Your task to perform on an android device: delete a single message in the gmail app Image 0: 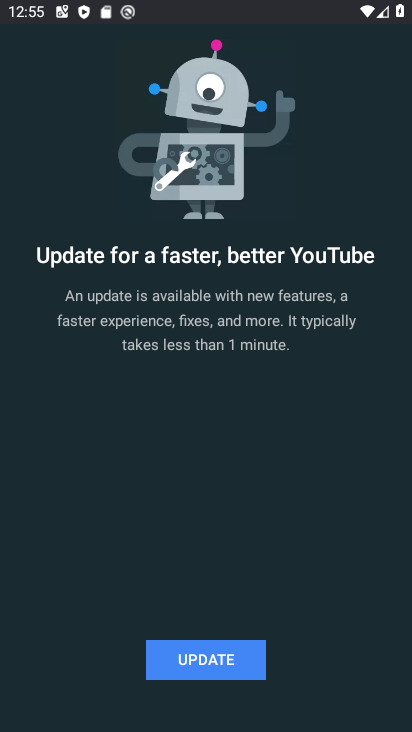
Step 0: press home button
Your task to perform on an android device: delete a single message in the gmail app Image 1: 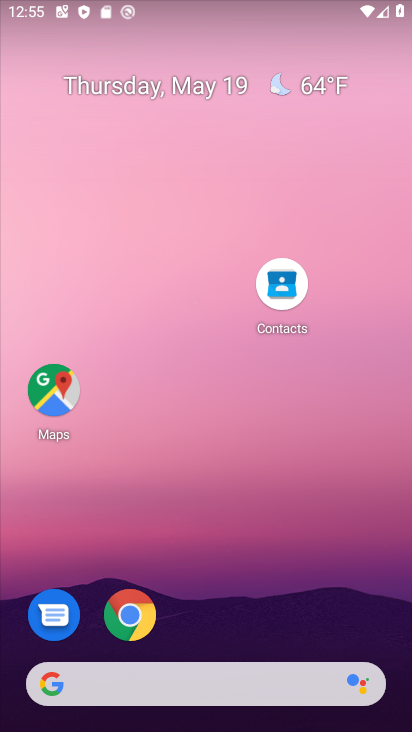
Step 1: drag from (218, 684) to (218, 296)
Your task to perform on an android device: delete a single message in the gmail app Image 2: 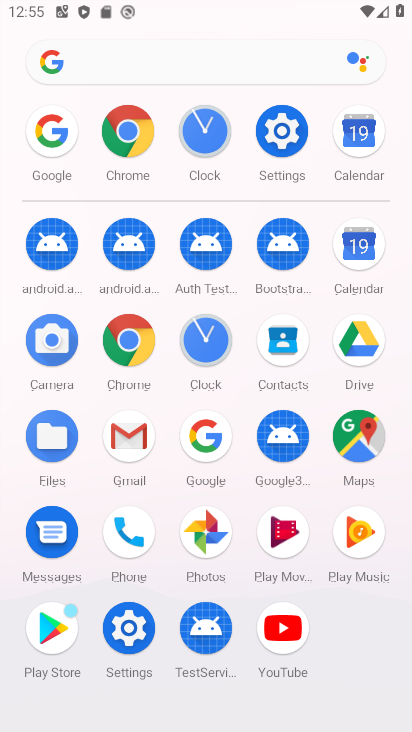
Step 2: click (121, 443)
Your task to perform on an android device: delete a single message in the gmail app Image 3: 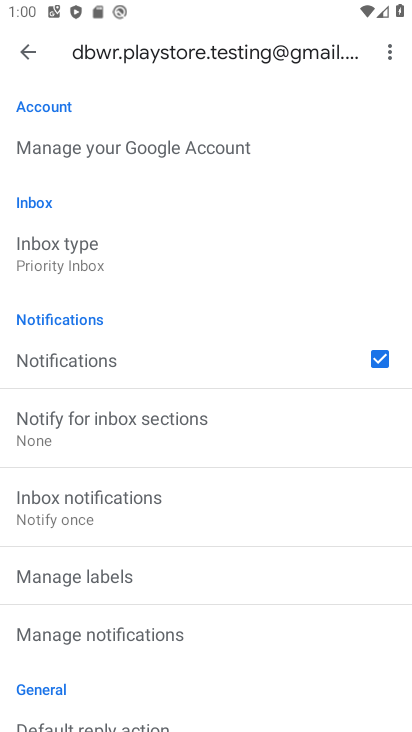
Step 3: drag from (273, 583) to (178, 328)
Your task to perform on an android device: delete a single message in the gmail app Image 4: 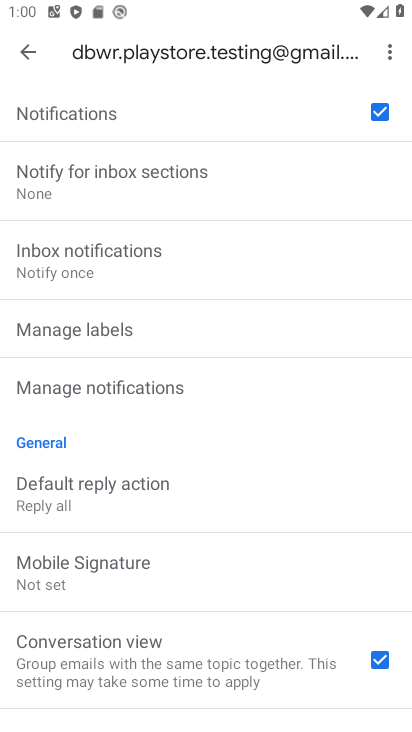
Step 4: click (25, 61)
Your task to perform on an android device: delete a single message in the gmail app Image 5: 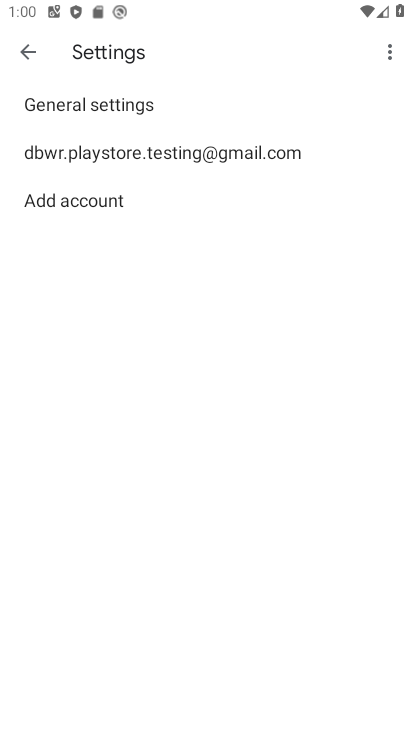
Step 5: click (25, 61)
Your task to perform on an android device: delete a single message in the gmail app Image 6: 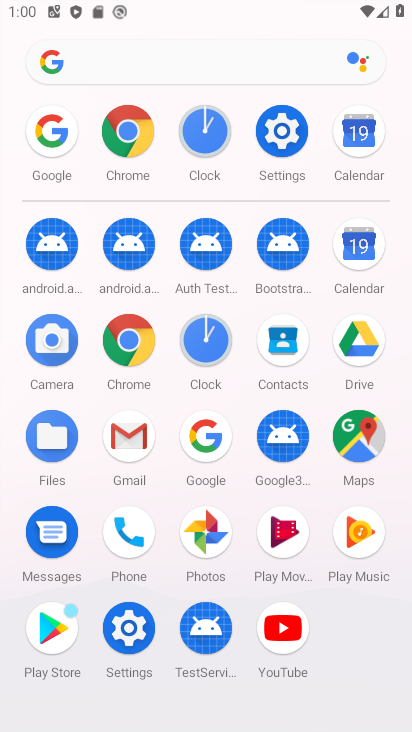
Step 6: click (140, 438)
Your task to perform on an android device: delete a single message in the gmail app Image 7: 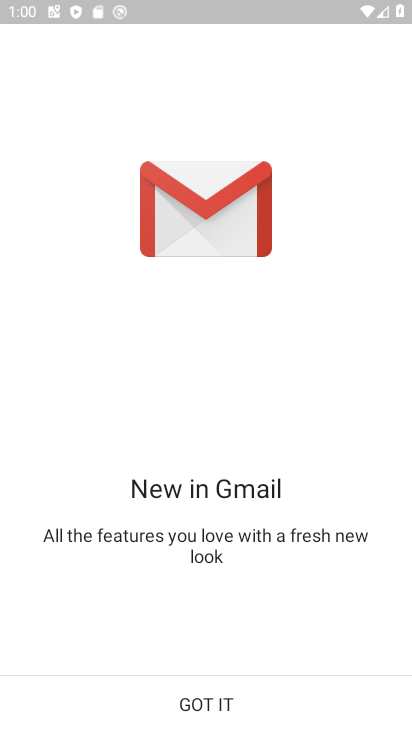
Step 7: click (256, 704)
Your task to perform on an android device: delete a single message in the gmail app Image 8: 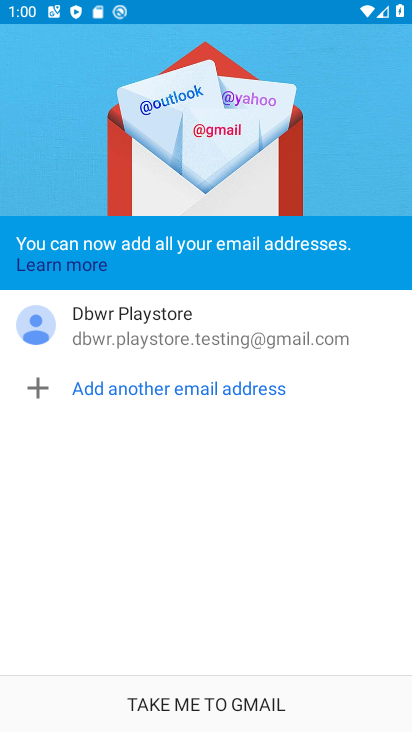
Step 8: click (256, 696)
Your task to perform on an android device: delete a single message in the gmail app Image 9: 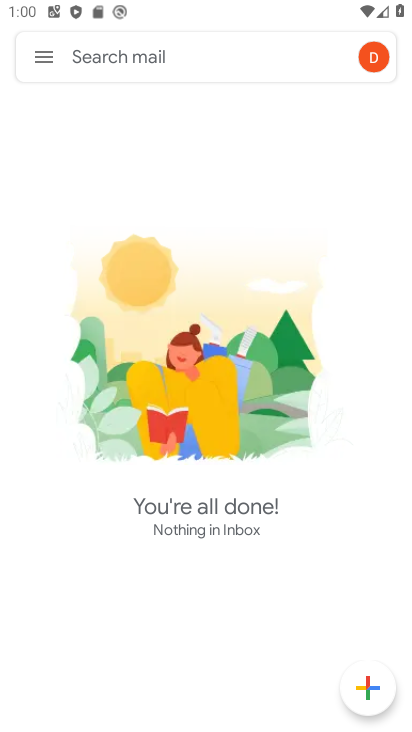
Step 9: click (35, 64)
Your task to perform on an android device: delete a single message in the gmail app Image 10: 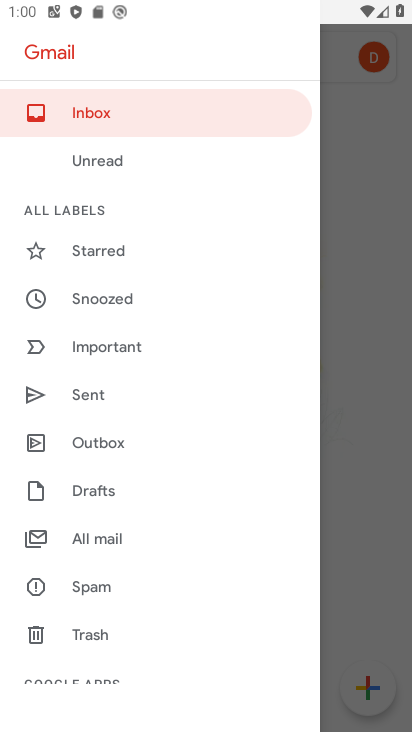
Step 10: drag from (185, 491) to (177, 382)
Your task to perform on an android device: delete a single message in the gmail app Image 11: 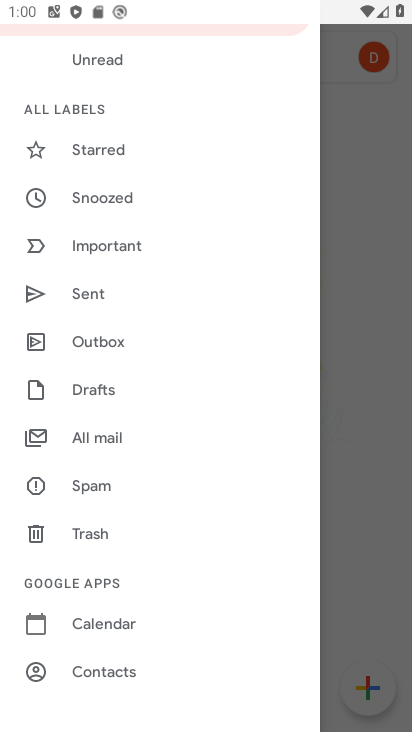
Step 11: click (139, 436)
Your task to perform on an android device: delete a single message in the gmail app Image 12: 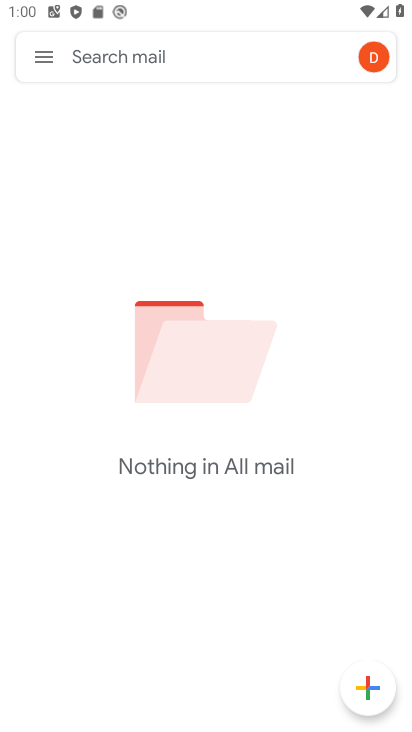
Step 12: task complete